Your task to perform on an android device: toggle sleep mode Image 0: 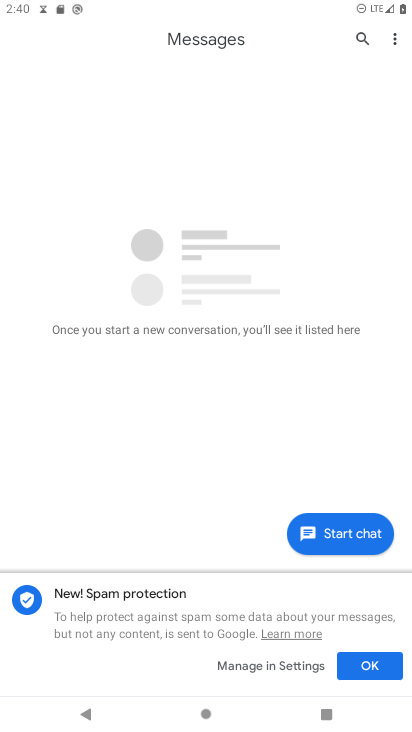
Step 0: press home button
Your task to perform on an android device: toggle sleep mode Image 1: 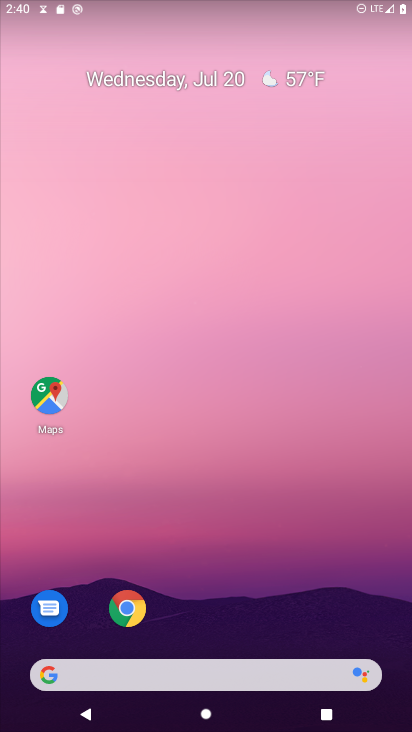
Step 1: drag from (225, 723) to (212, 314)
Your task to perform on an android device: toggle sleep mode Image 2: 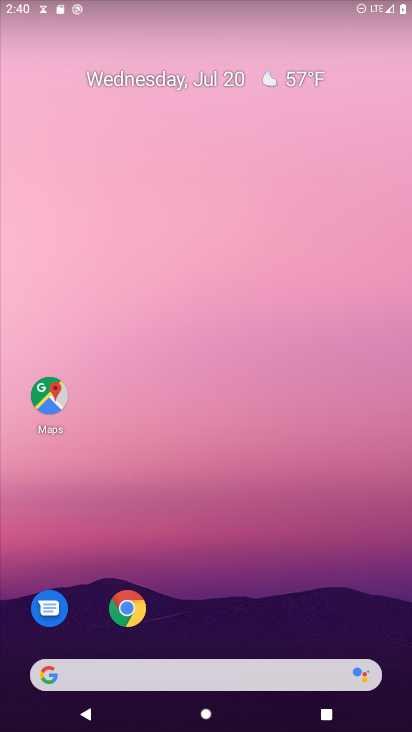
Step 2: drag from (230, 711) to (188, 130)
Your task to perform on an android device: toggle sleep mode Image 3: 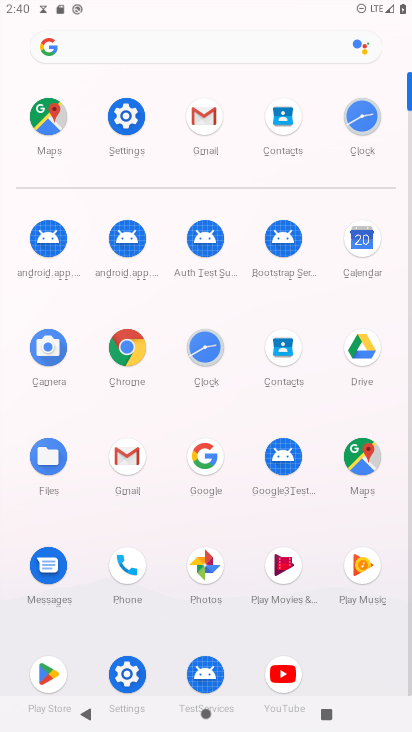
Step 3: click (128, 123)
Your task to perform on an android device: toggle sleep mode Image 4: 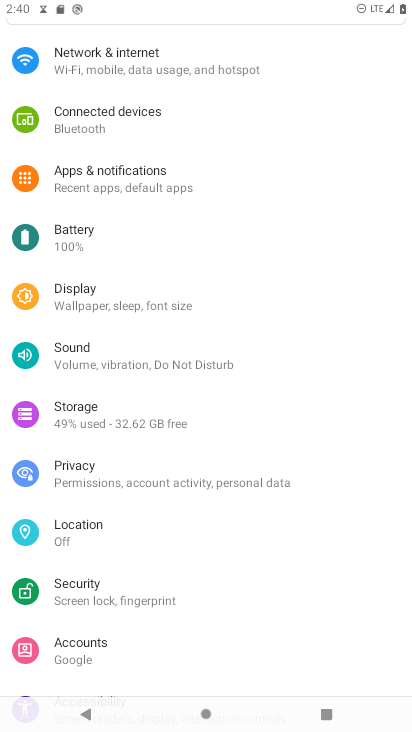
Step 4: click (123, 306)
Your task to perform on an android device: toggle sleep mode Image 5: 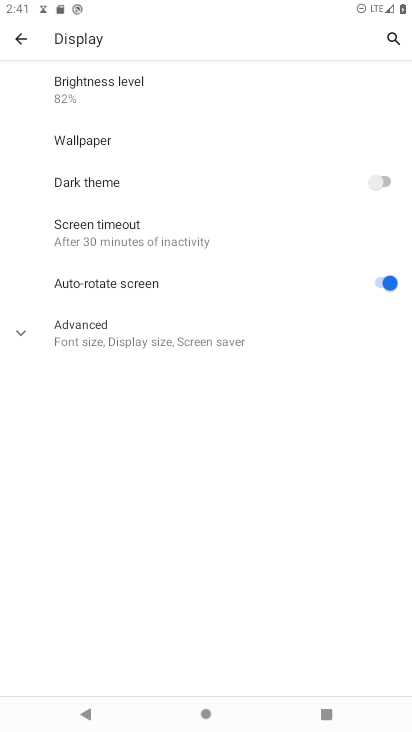
Step 5: task complete